Your task to perform on an android device: turn on wifi Image 0: 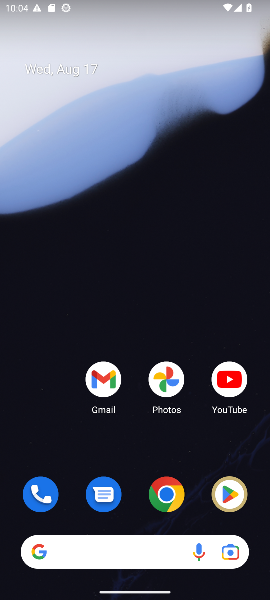
Step 0: drag from (142, 5) to (140, 386)
Your task to perform on an android device: turn on wifi Image 1: 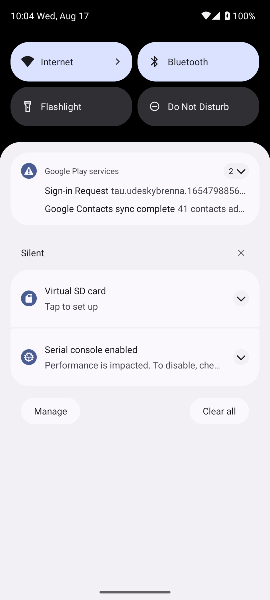
Step 1: task complete